Your task to perform on an android device: change notifications settings Image 0: 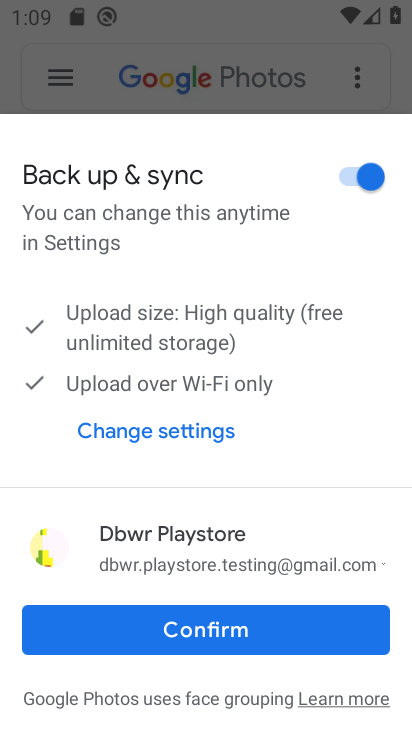
Step 0: press home button
Your task to perform on an android device: change notifications settings Image 1: 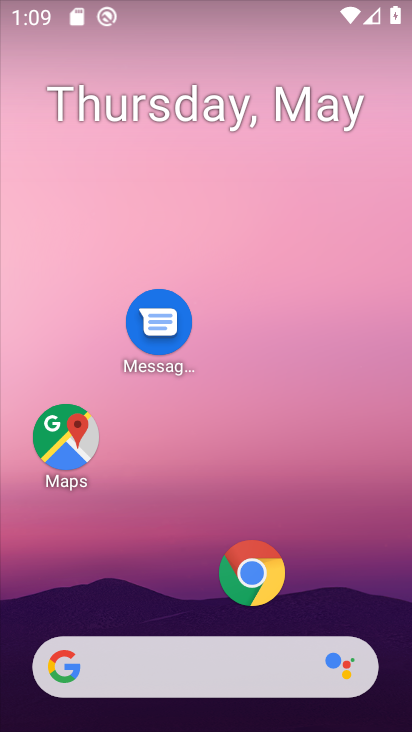
Step 1: drag from (173, 609) to (237, 4)
Your task to perform on an android device: change notifications settings Image 2: 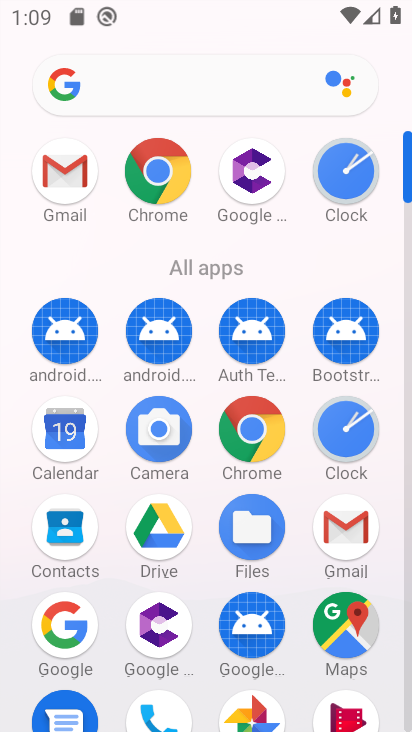
Step 2: drag from (206, 655) to (273, 42)
Your task to perform on an android device: change notifications settings Image 3: 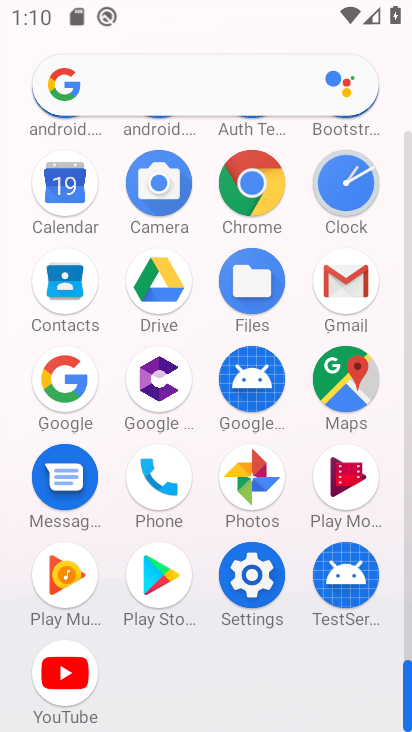
Step 3: click (241, 570)
Your task to perform on an android device: change notifications settings Image 4: 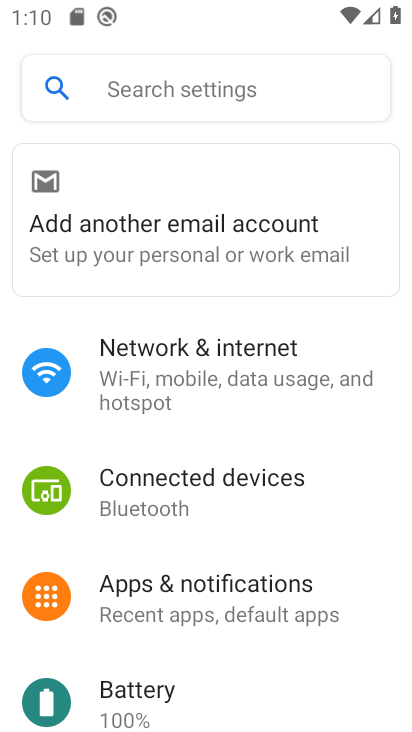
Step 4: drag from (204, 675) to (257, 341)
Your task to perform on an android device: change notifications settings Image 5: 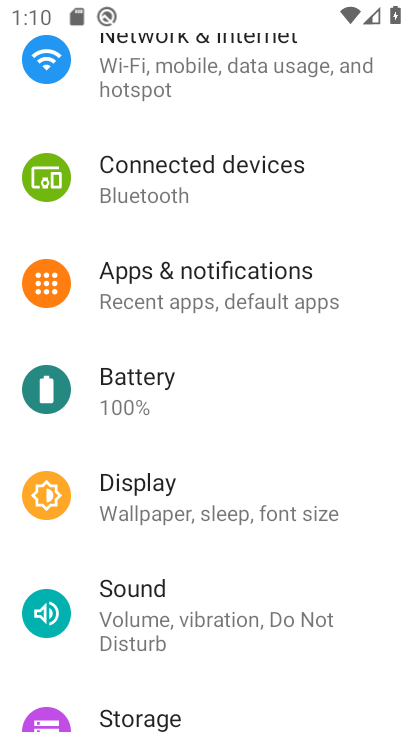
Step 5: click (254, 268)
Your task to perform on an android device: change notifications settings Image 6: 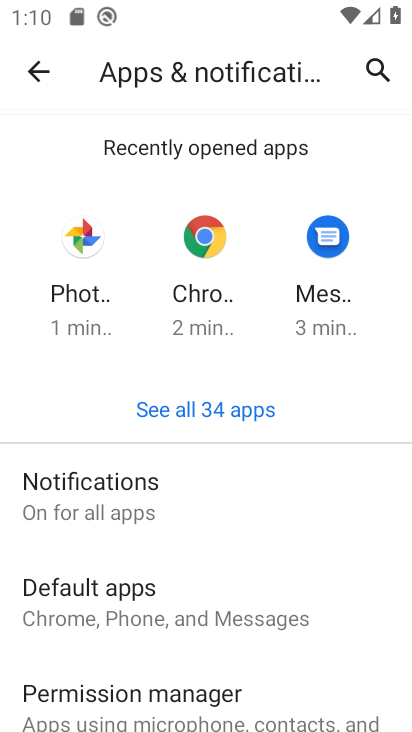
Step 6: click (179, 482)
Your task to perform on an android device: change notifications settings Image 7: 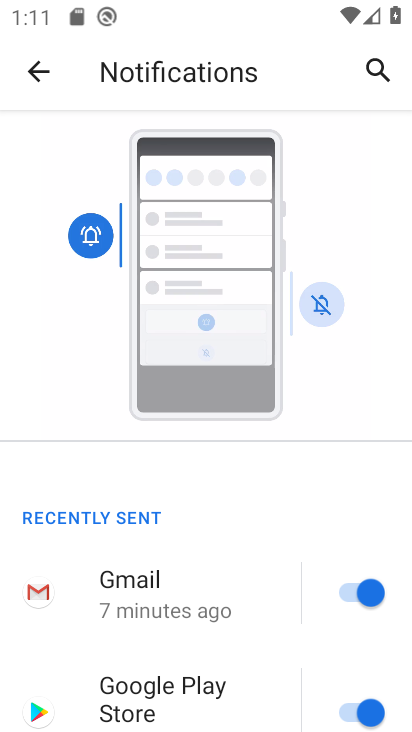
Step 7: drag from (188, 631) to (329, 20)
Your task to perform on an android device: change notifications settings Image 8: 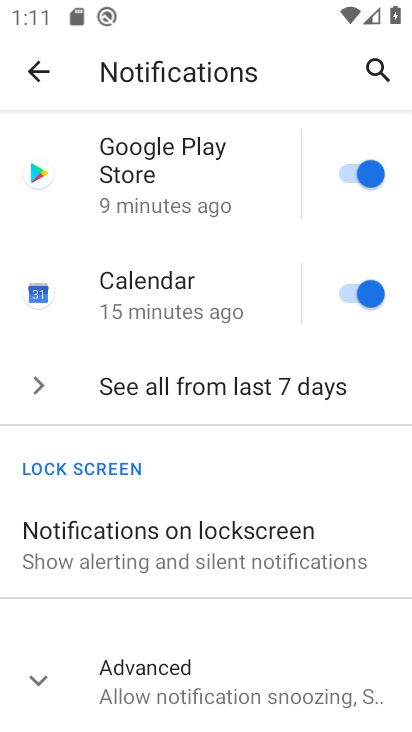
Step 8: click (338, 302)
Your task to perform on an android device: change notifications settings Image 9: 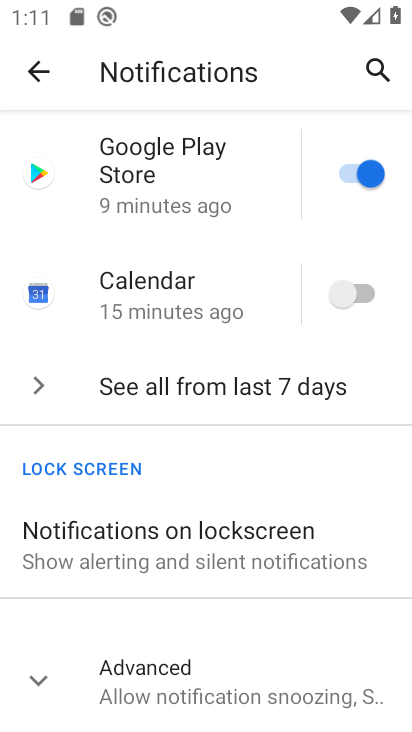
Step 9: task complete